Your task to perform on an android device: Show me popular games on the Play Store Image 0: 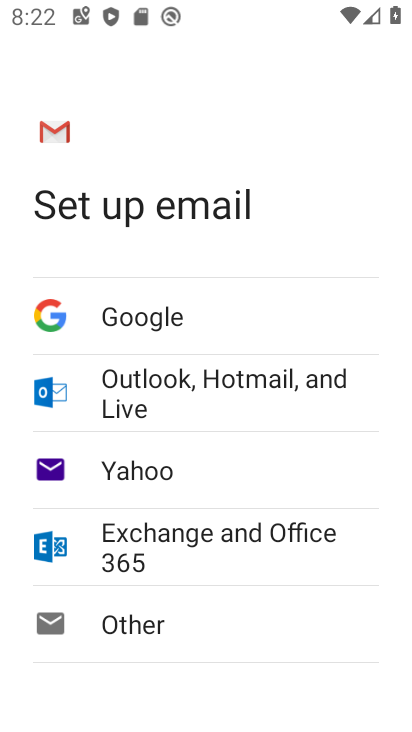
Step 0: press home button
Your task to perform on an android device: Show me popular games on the Play Store Image 1: 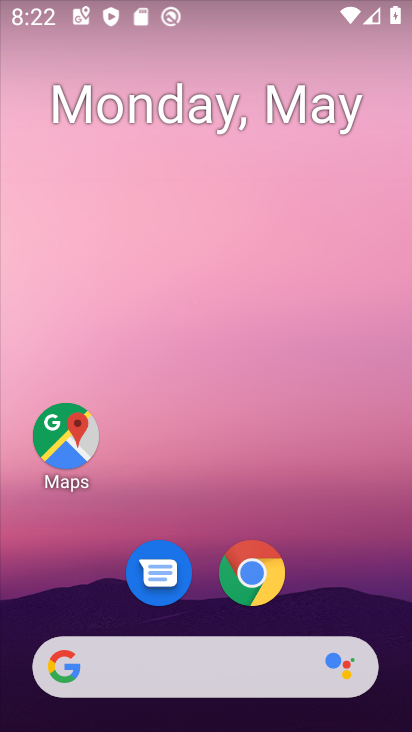
Step 1: drag from (330, 578) to (216, 183)
Your task to perform on an android device: Show me popular games on the Play Store Image 2: 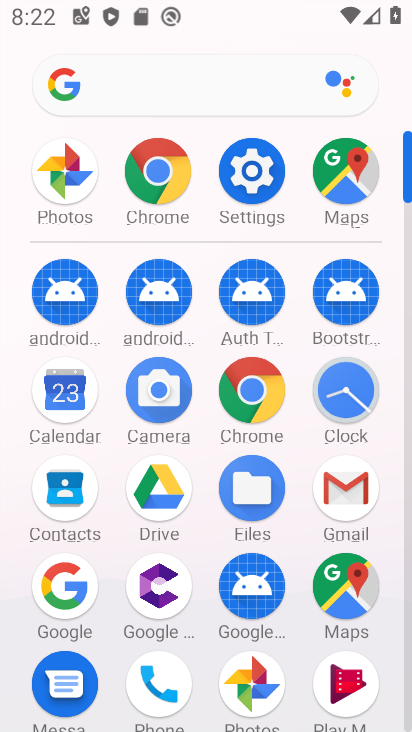
Step 2: click (409, 726)
Your task to perform on an android device: Show me popular games on the Play Store Image 3: 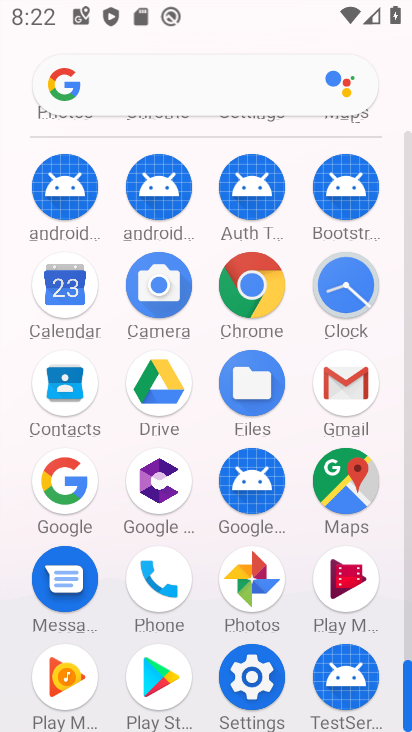
Step 3: click (159, 680)
Your task to perform on an android device: Show me popular games on the Play Store Image 4: 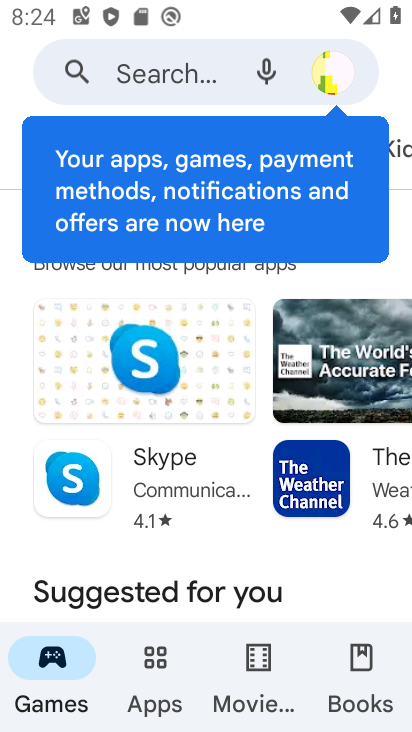
Step 4: click (19, 328)
Your task to perform on an android device: Show me popular games on the Play Store Image 5: 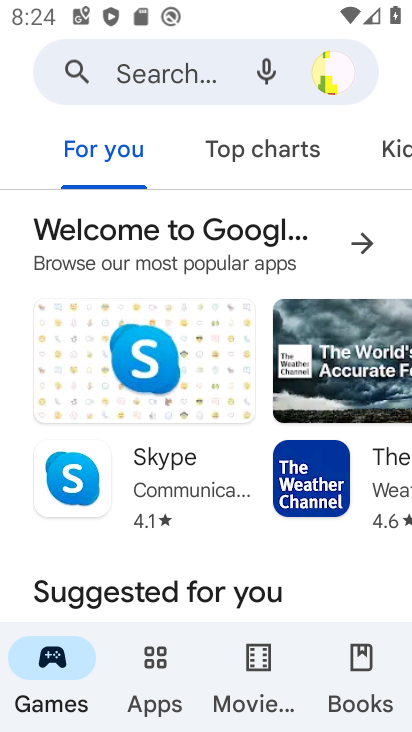
Step 5: click (222, 150)
Your task to perform on an android device: Show me popular games on the Play Store Image 6: 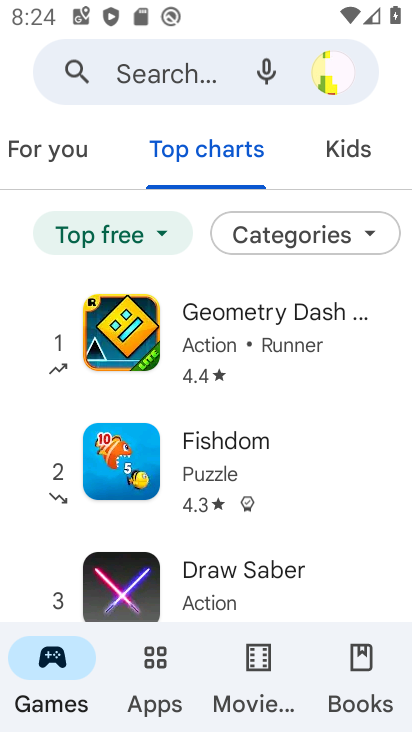
Step 6: task complete